Your task to perform on an android device: toggle priority inbox in the gmail app Image 0: 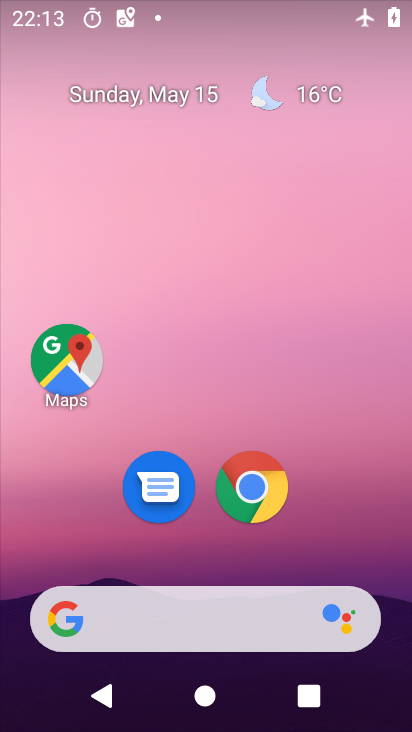
Step 0: drag from (397, 638) to (341, 282)
Your task to perform on an android device: toggle priority inbox in the gmail app Image 1: 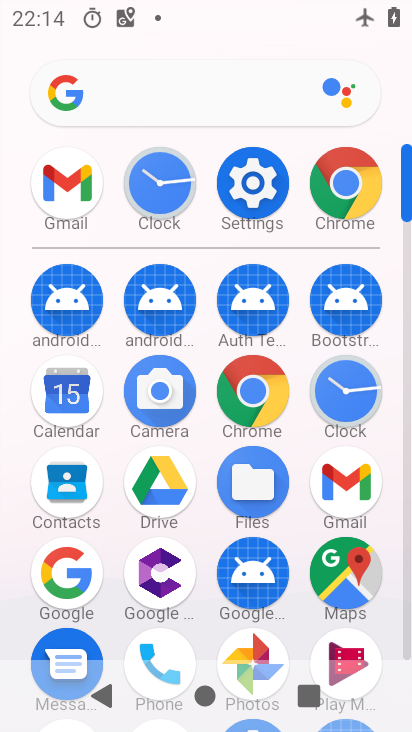
Step 1: click (340, 487)
Your task to perform on an android device: toggle priority inbox in the gmail app Image 2: 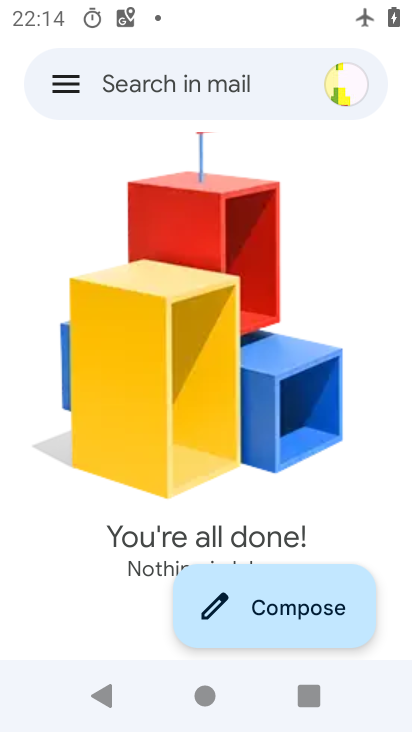
Step 2: click (56, 84)
Your task to perform on an android device: toggle priority inbox in the gmail app Image 3: 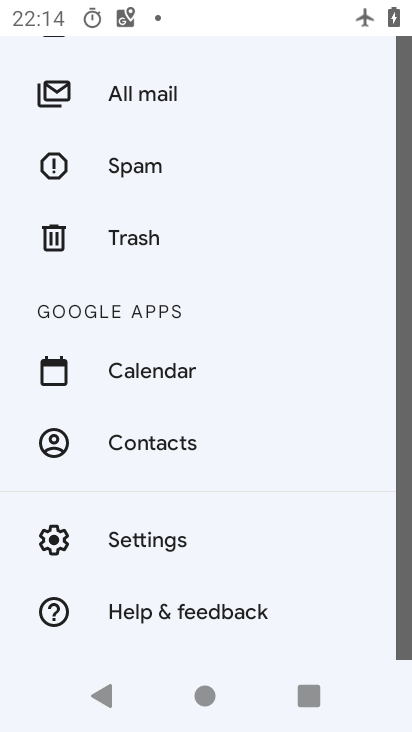
Step 3: click (314, 428)
Your task to perform on an android device: toggle priority inbox in the gmail app Image 4: 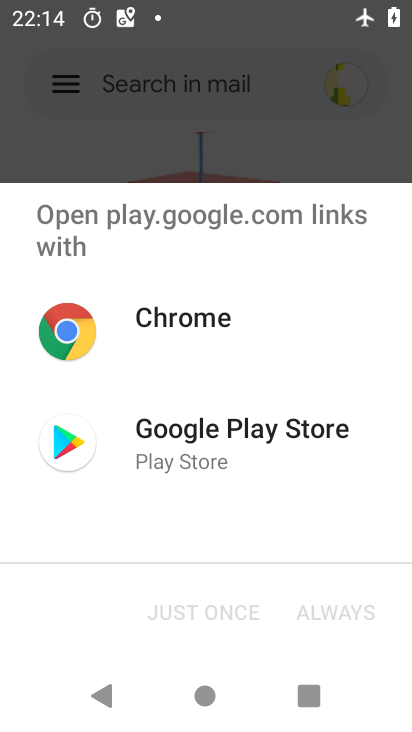
Step 4: click (63, 76)
Your task to perform on an android device: toggle priority inbox in the gmail app Image 5: 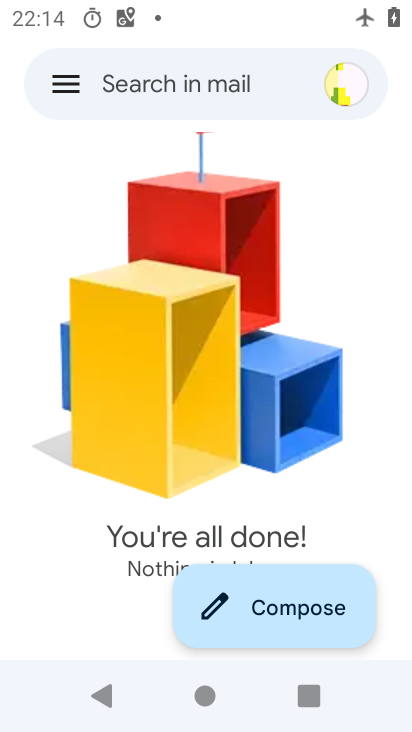
Step 5: click (47, 90)
Your task to perform on an android device: toggle priority inbox in the gmail app Image 6: 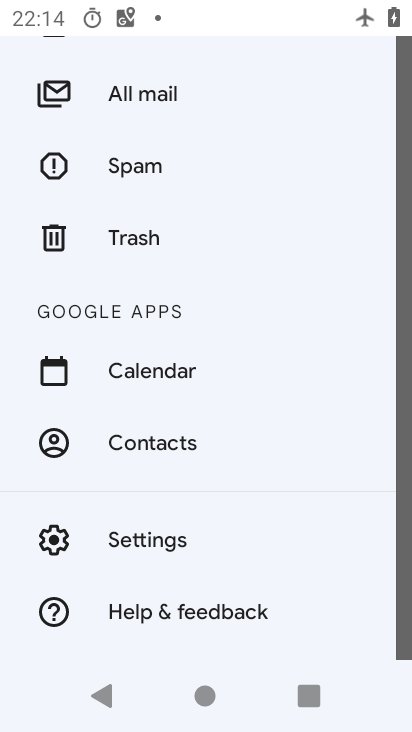
Step 6: drag from (310, 597) to (275, 353)
Your task to perform on an android device: toggle priority inbox in the gmail app Image 7: 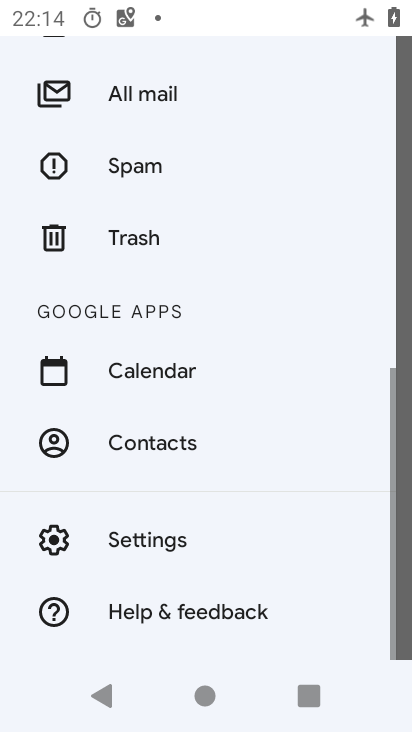
Step 7: click (146, 531)
Your task to perform on an android device: toggle priority inbox in the gmail app Image 8: 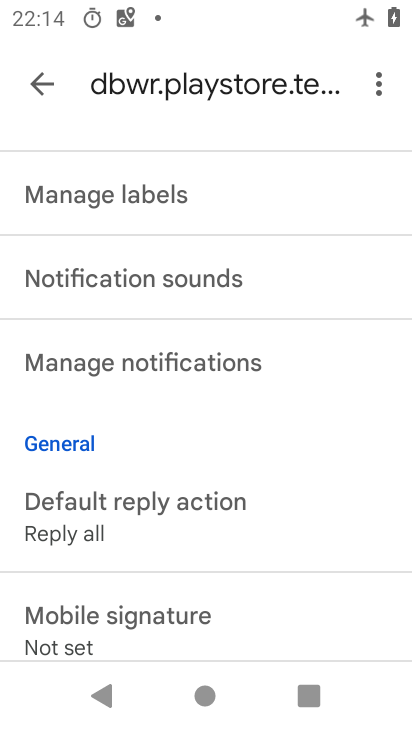
Step 8: drag from (284, 626) to (290, 356)
Your task to perform on an android device: toggle priority inbox in the gmail app Image 9: 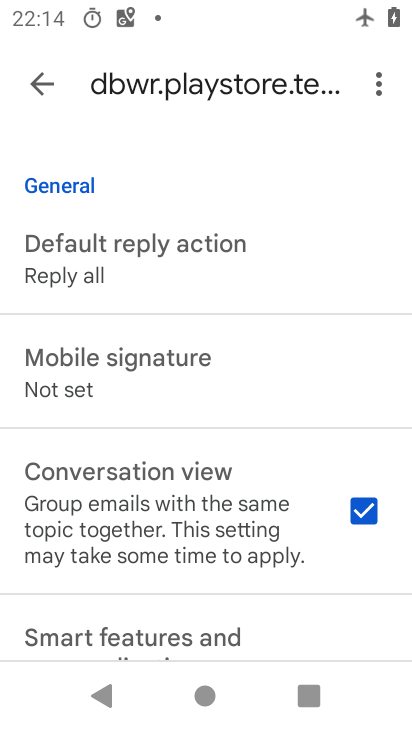
Step 9: drag from (217, 348) to (216, 265)
Your task to perform on an android device: toggle priority inbox in the gmail app Image 10: 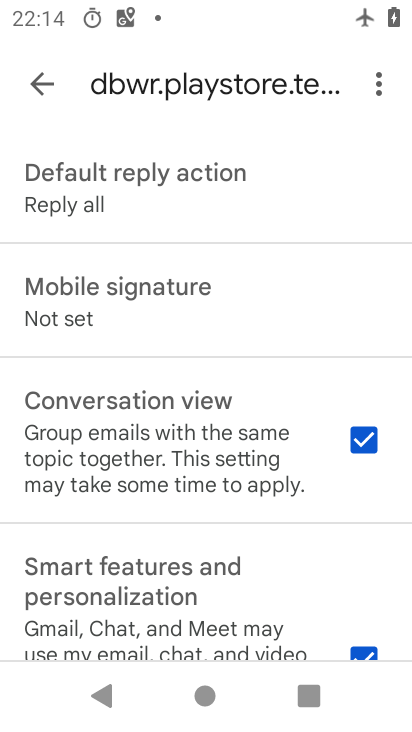
Step 10: drag from (215, 209) to (216, 399)
Your task to perform on an android device: toggle priority inbox in the gmail app Image 11: 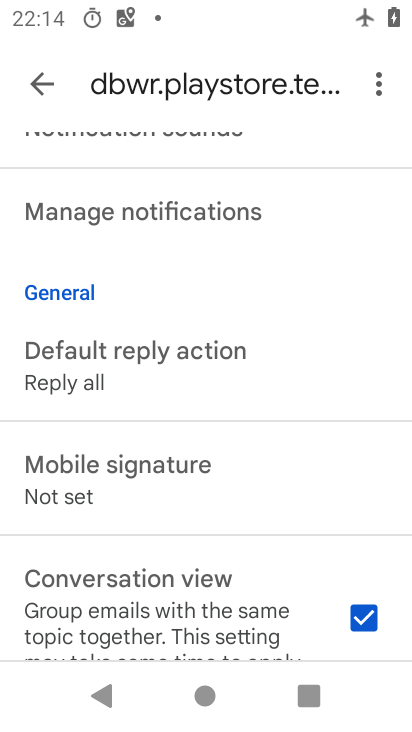
Step 11: drag from (204, 199) to (213, 309)
Your task to perform on an android device: toggle priority inbox in the gmail app Image 12: 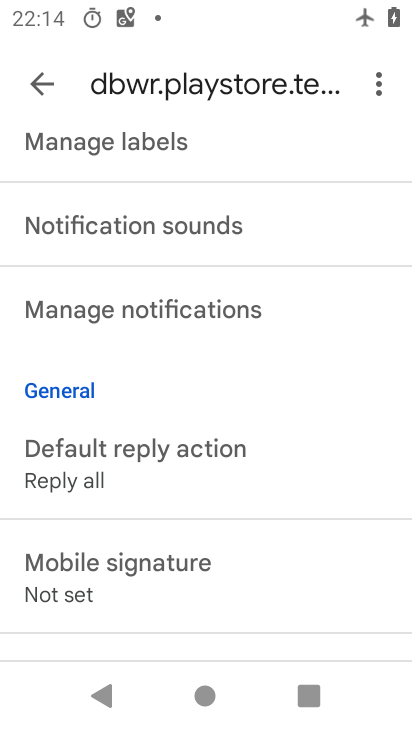
Step 12: click (208, 254)
Your task to perform on an android device: toggle priority inbox in the gmail app Image 13: 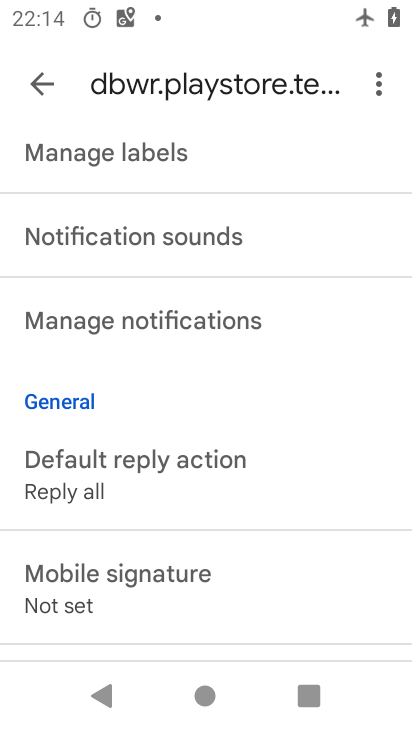
Step 13: drag from (199, 146) to (175, 300)
Your task to perform on an android device: toggle priority inbox in the gmail app Image 14: 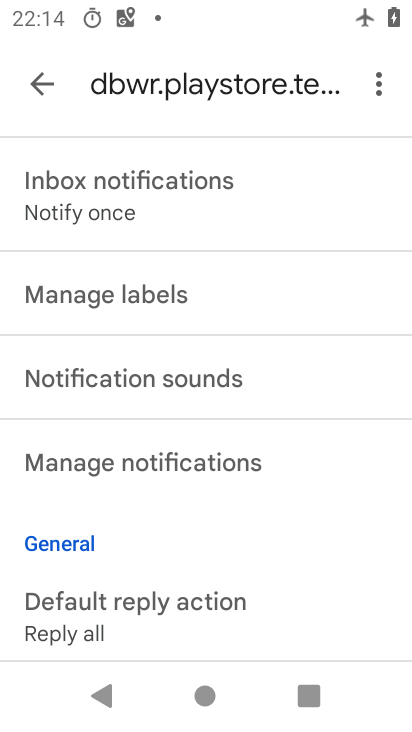
Step 14: drag from (236, 166) to (273, 428)
Your task to perform on an android device: toggle priority inbox in the gmail app Image 15: 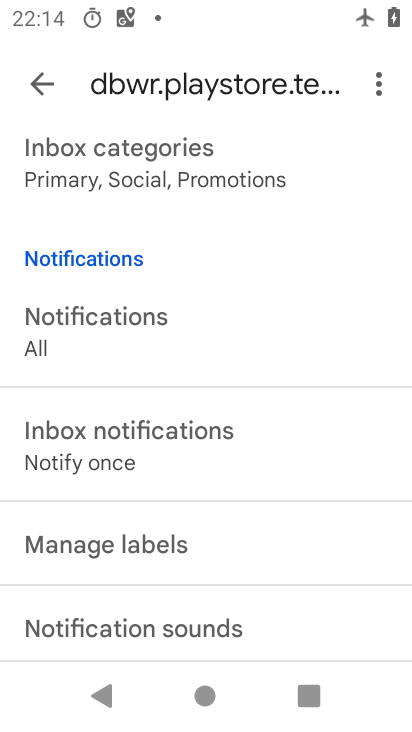
Step 15: drag from (253, 226) to (275, 425)
Your task to perform on an android device: toggle priority inbox in the gmail app Image 16: 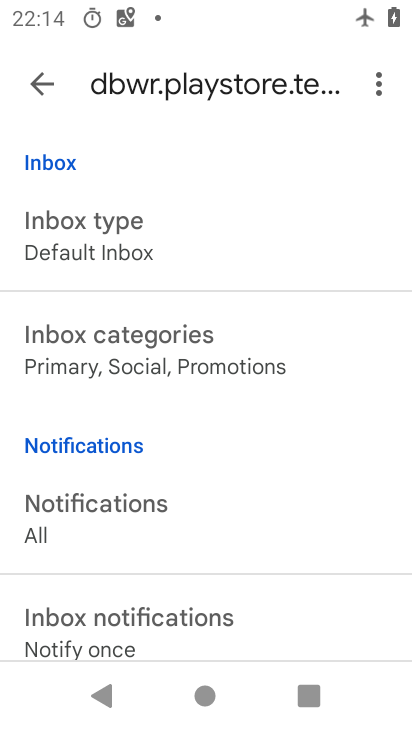
Step 16: click (69, 237)
Your task to perform on an android device: toggle priority inbox in the gmail app Image 17: 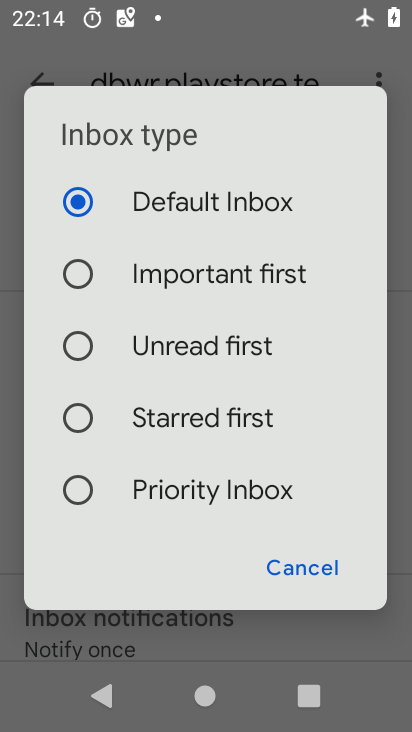
Step 17: click (78, 484)
Your task to perform on an android device: toggle priority inbox in the gmail app Image 18: 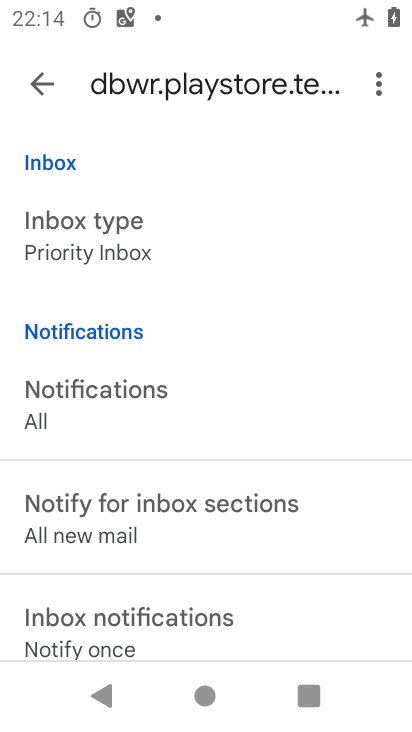
Step 18: task complete